Your task to perform on an android device: Open maps Image 0: 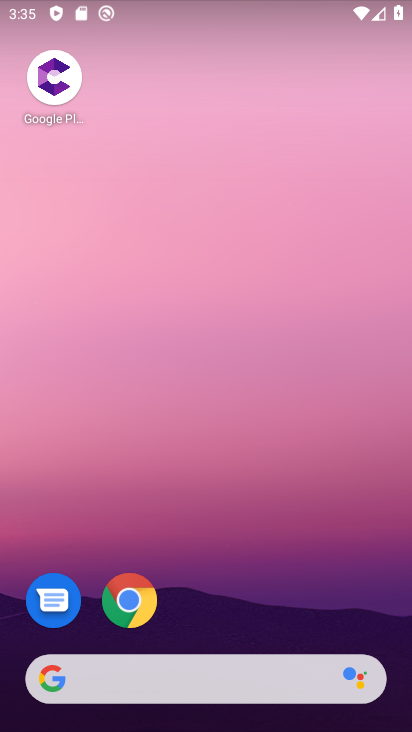
Step 0: drag from (208, 637) to (296, 141)
Your task to perform on an android device: Open maps Image 1: 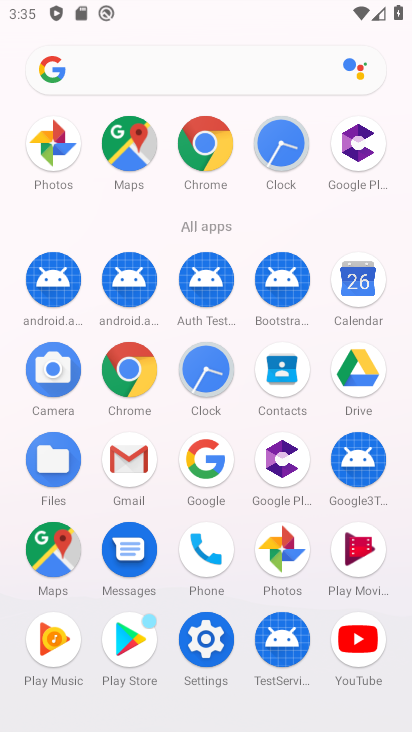
Step 1: click (51, 540)
Your task to perform on an android device: Open maps Image 2: 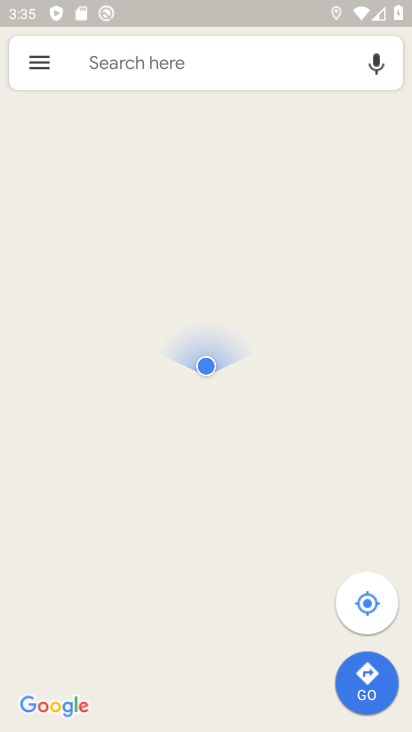
Step 2: task complete